Your task to perform on an android device: make emails show in primary in the gmail app Image 0: 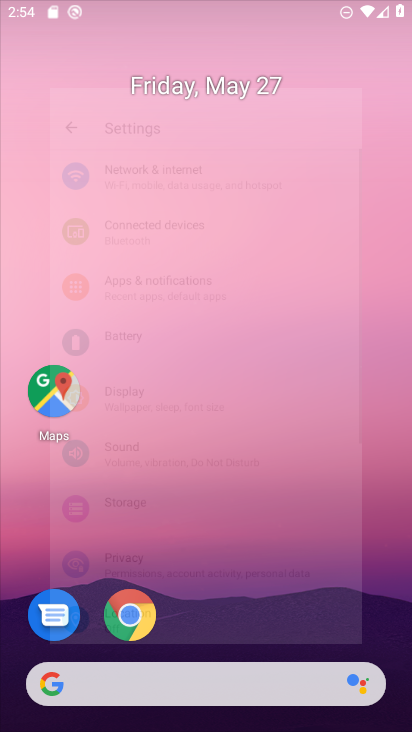
Step 0: drag from (328, 618) to (130, 5)
Your task to perform on an android device: make emails show in primary in the gmail app Image 1: 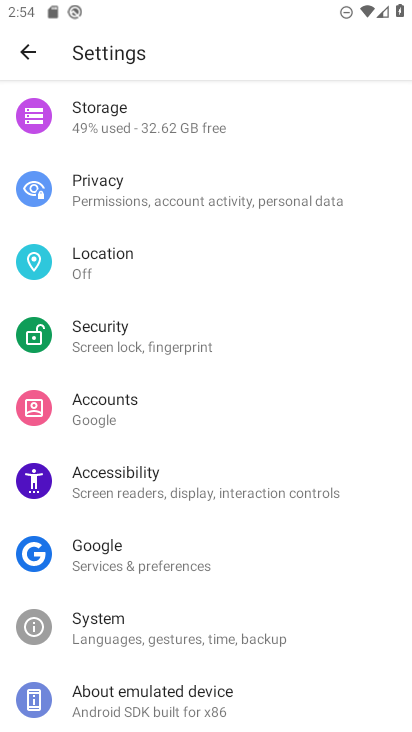
Step 1: press home button
Your task to perform on an android device: make emails show in primary in the gmail app Image 2: 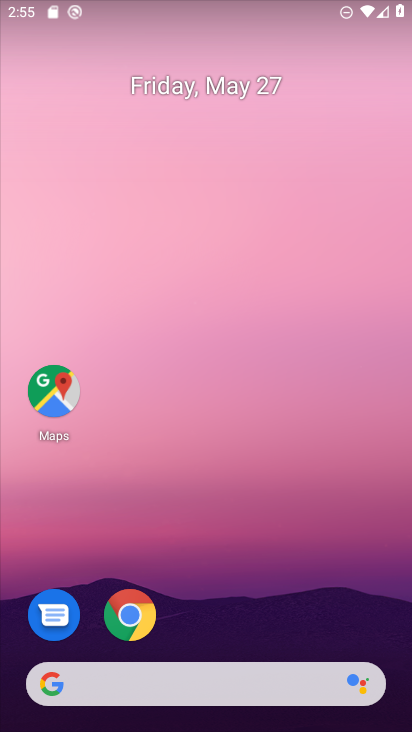
Step 2: drag from (271, 384) to (125, 0)
Your task to perform on an android device: make emails show in primary in the gmail app Image 3: 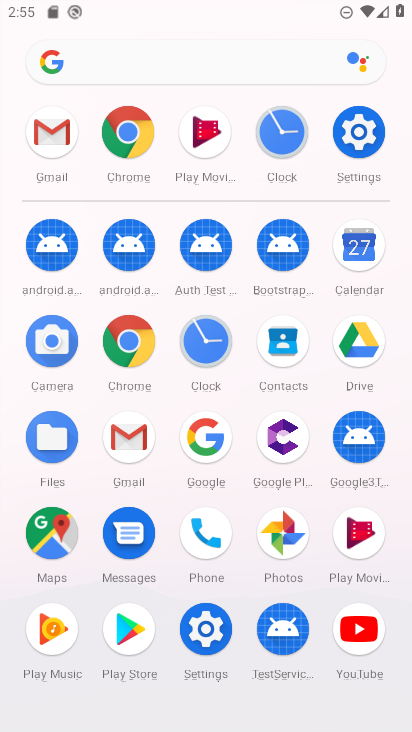
Step 3: click (46, 136)
Your task to perform on an android device: make emails show in primary in the gmail app Image 4: 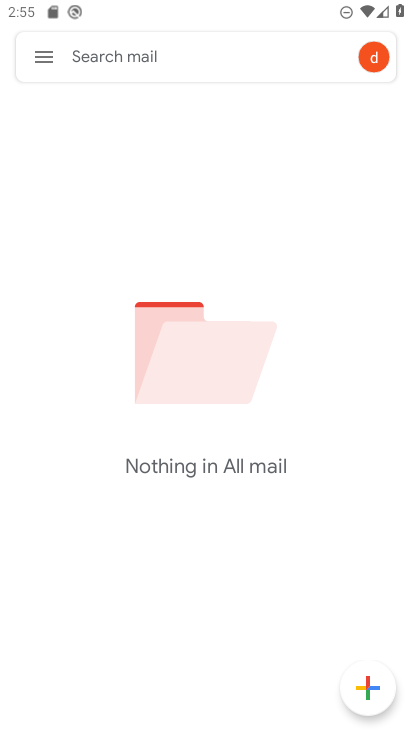
Step 4: click (40, 49)
Your task to perform on an android device: make emails show in primary in the gmail app Image 5: 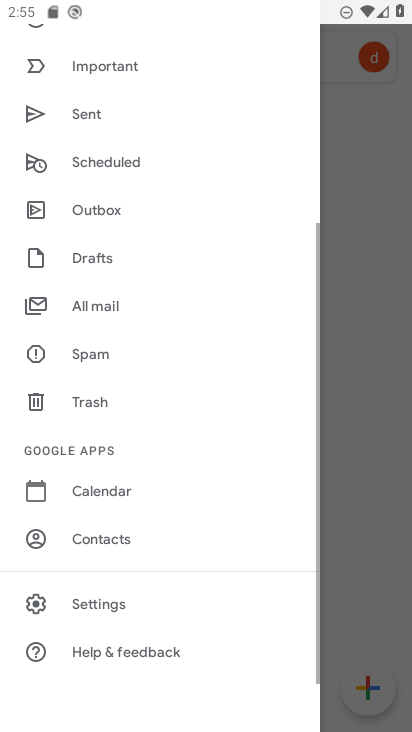
Step 5: task complete